Your task to perform on an android device: change timer sound Image 0: 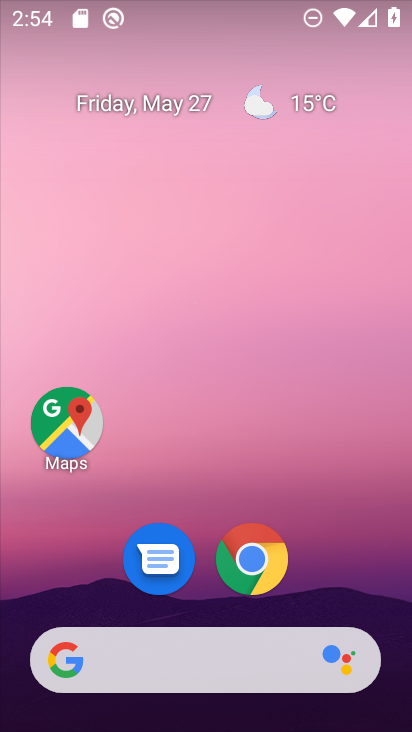
Step 0: drag from (301, 646) to (308, 45)
Your task to perform on an android device: change timer sound Image 1: 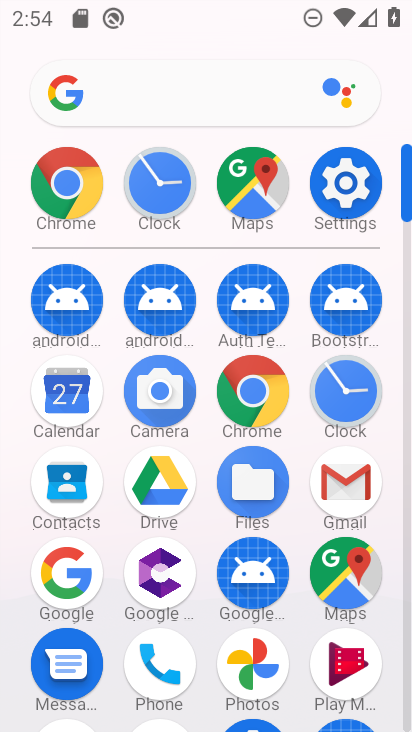
Step 1: click (337, 390)
Your task to perform on an android device: change timer sound Image 2: 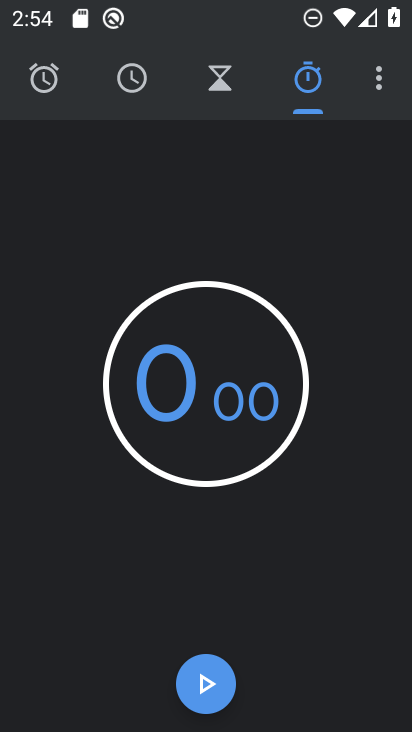
Step 2: click (386, 79)
Your task to perform on an android device: change timer sound Image 3: 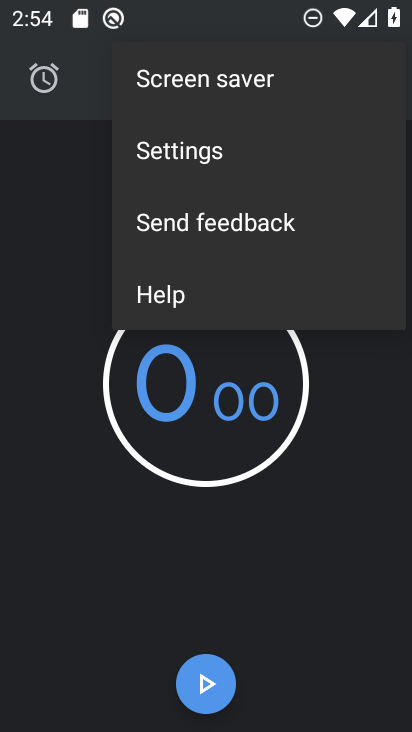
Step 3: click (235, 147)
Your task to perform on an android device: change timer sound Image 4: 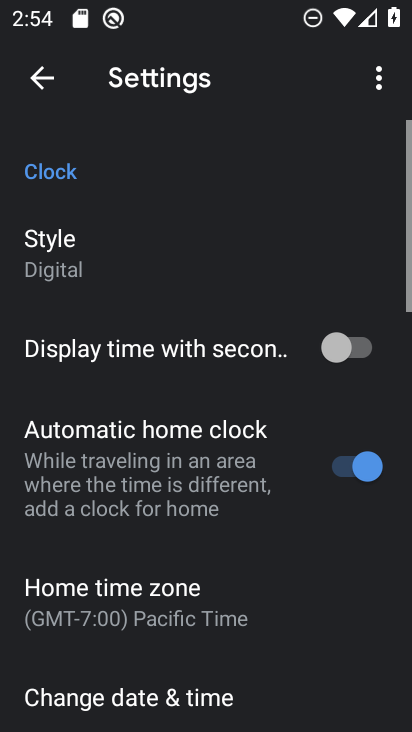
Step 4: drag from (246, 569) to (257, 33)
Your task to perform on an android device: change timer sound Image 5: 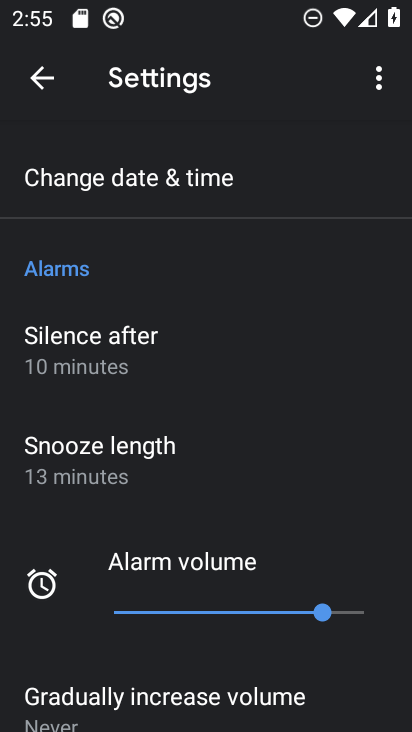
Step 5: drag from (199, 527) to (235, 116)
Your task to perform on an android device: change timer sound Image 6: 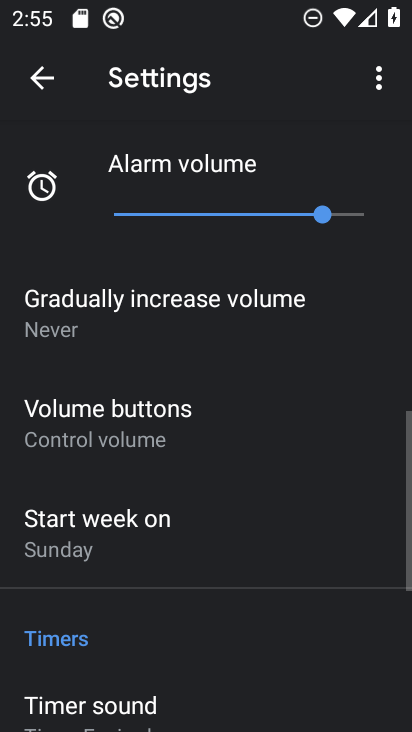
Step 6: drag from (176, 607) to (191, 207)
Your task to perform on an android device: change timer sound Image 7: 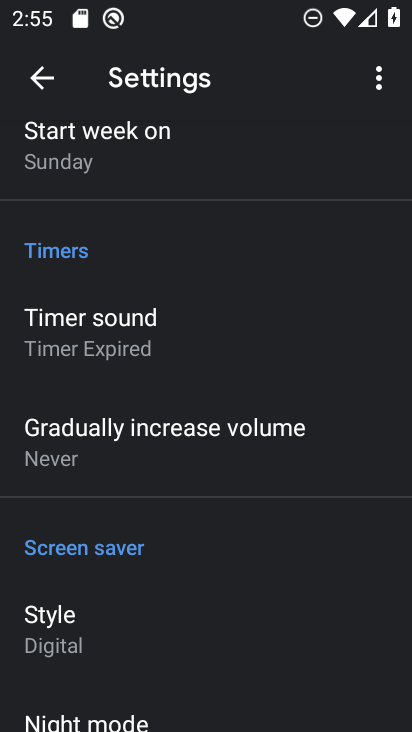
Step 7: click (134, 341)
Your task to perform on an android device: change timer sound Image 8: 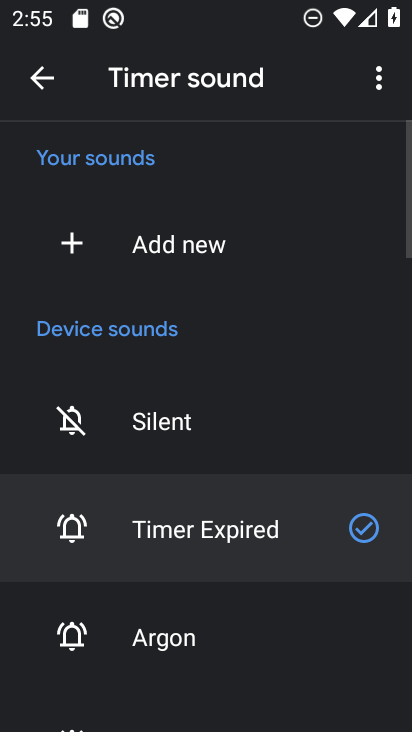
Step 8: click (131, 664)
Your task to perform on an android device: change timer sound Image 9: 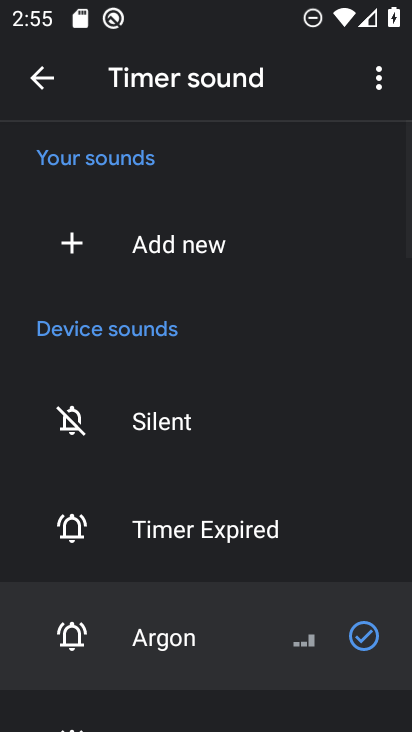
Step 9: task complete